Your task to perform on an android device: Open ESPN.com Image 0: 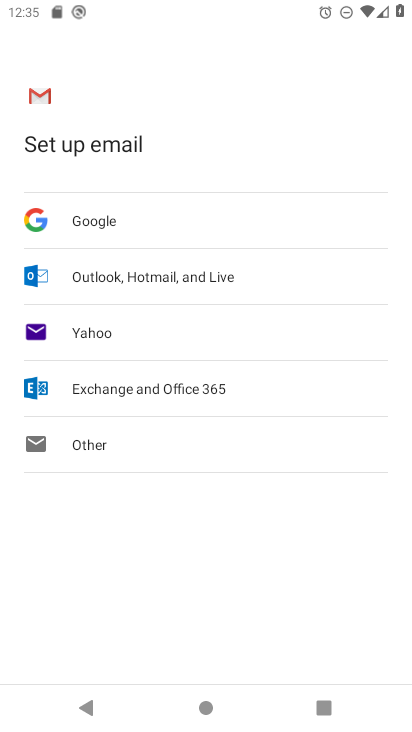
Step 0: press back button
Your task to perform on an android device: Open ESPN.com Image 1: 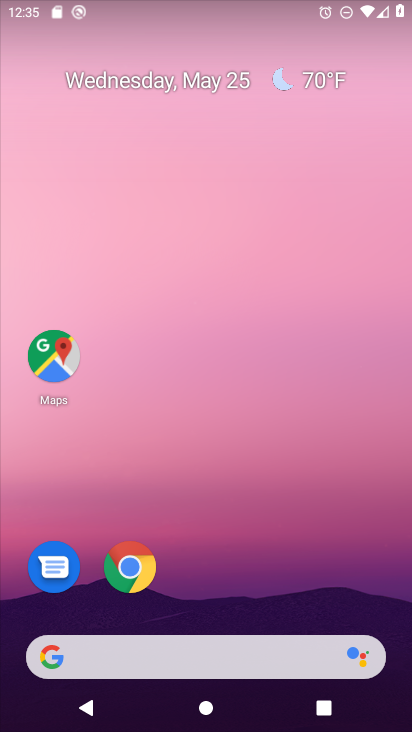
Step 1: click (130, 564)
Your task to perform on an android device: Open ESPN.com Image 2: 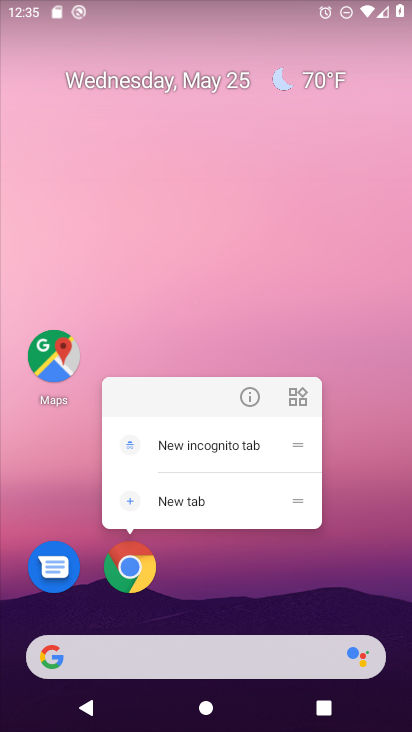
Step 2: click (130, 564)
Your task to perform on an android device: Open ESPN.com Image 3: 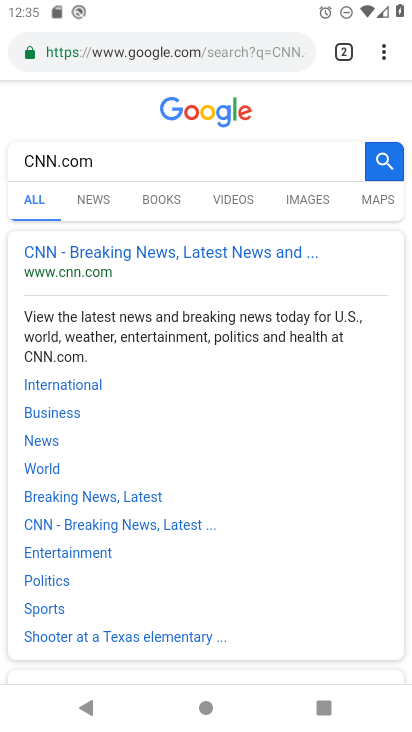
Step 3: click (303, 50)
Your task to perform on an android device: Open ESPN.com Image 4: 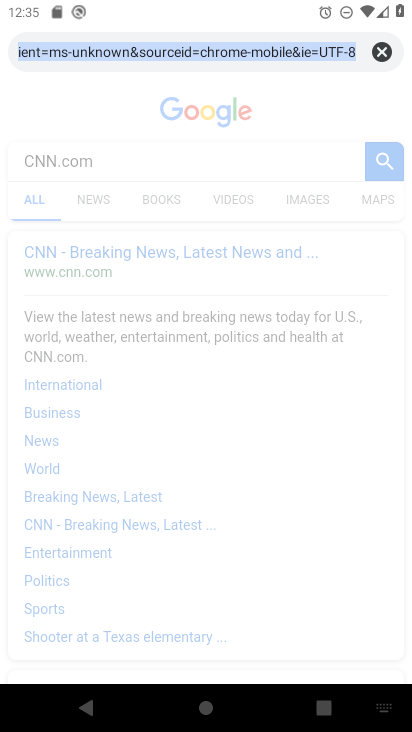
Step 4: click (384, 51)
Your task to perform on an android device: Open ESPN.com Image 5: 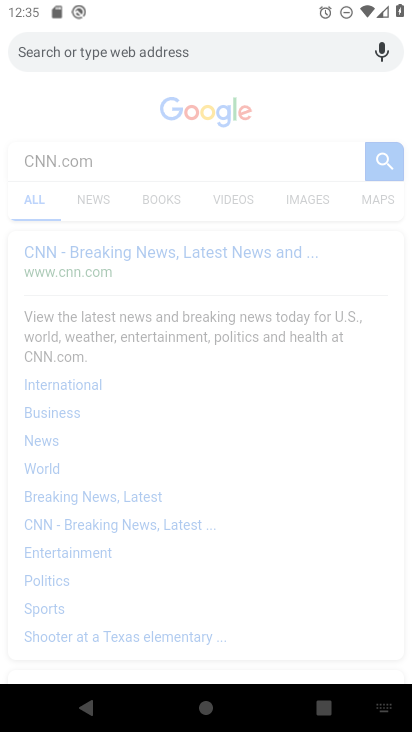
Step 5: type "ESPN.com"
Your task to perform on an android device: Open ESPN.com Image 6: 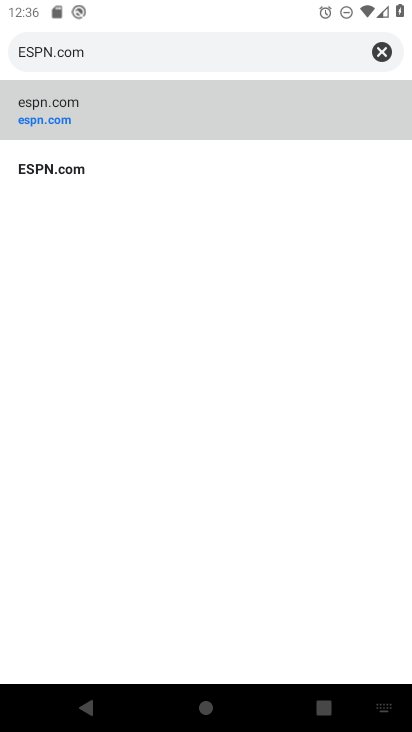
Step 6: click (63, 166)
Your task to perform on an android device: Open ESPN.com Image 7: 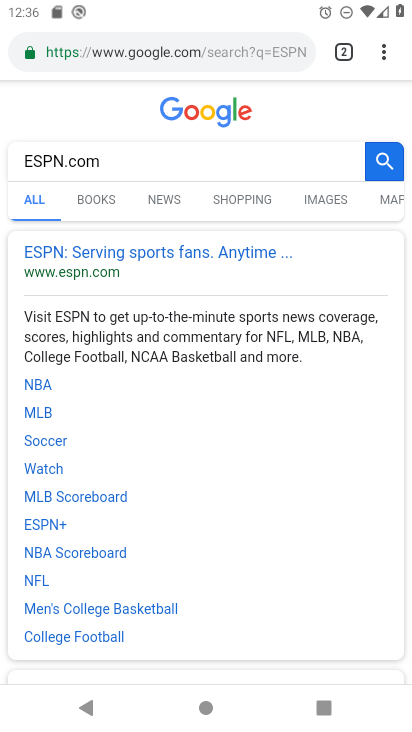
Step 7: task complete